Your task to perform on an android device: find which apps use the phone's location Image 0: 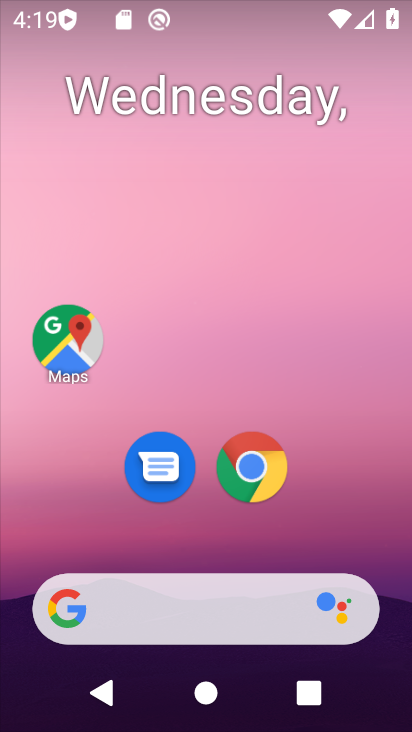
Step 0: drag from (380, 473) to (327, 221)
Your task to perform on an android device: find which apps use the phone's location Image 1: 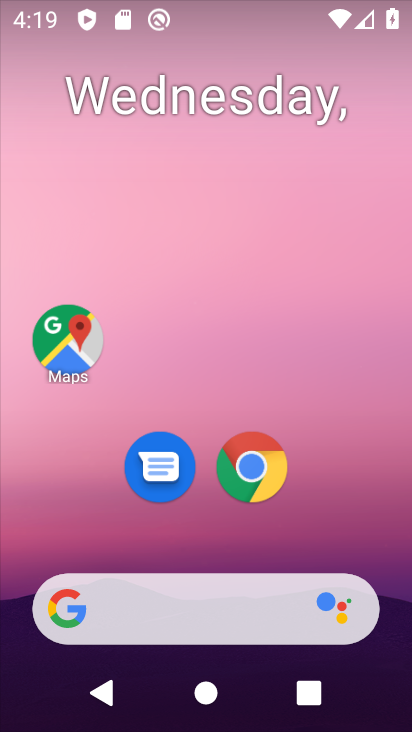
Step 1: drag from (327, 400) to (312, 203)
Your task to perform on an android device: find which apps use the phone's location Image 2: 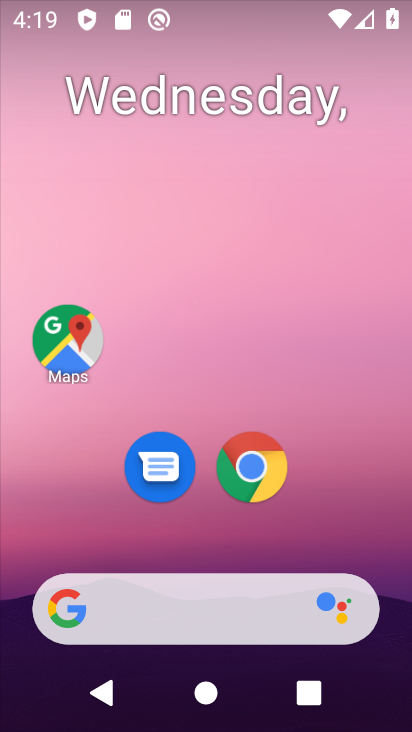
Step 2: drag from (380, 699) to (313, 50)
Your task to perform on an android device: find which apps use the phone's location Image 3: 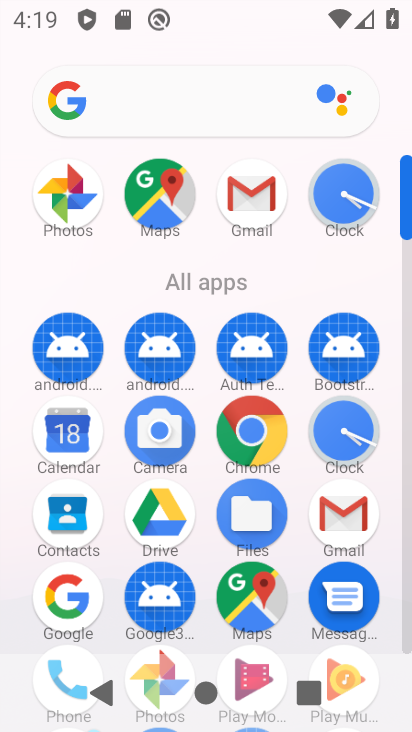
Step 3: drag from (386, 697) to (327, 475)
Your task to perform on an android device: find which apps use the phone's location Image 4: 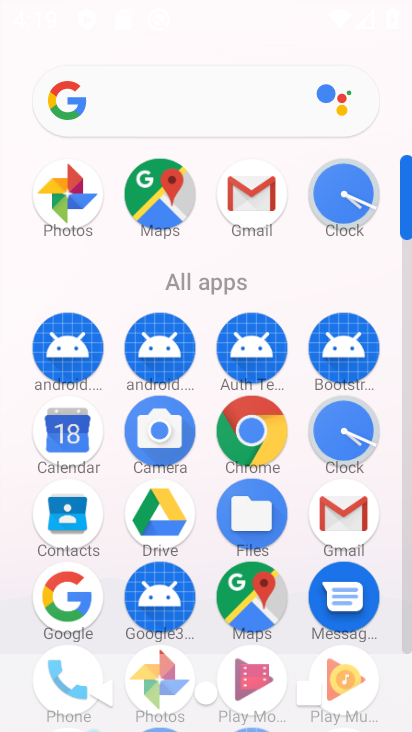
Step 4: drag from (410, 138) to (411, 84)
Your task to perform on an android device: find which apps use the phone's location Image 5: 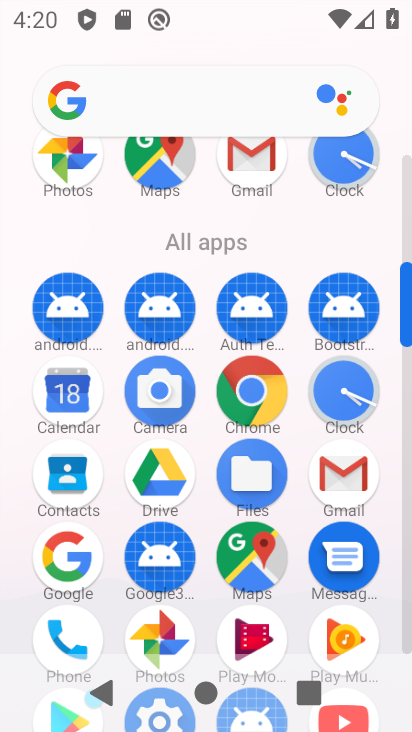
Step 5: drag from (407, 257) to (395, 149)
Your task to perform on an android device: find which apps use the phone's location Image 6: 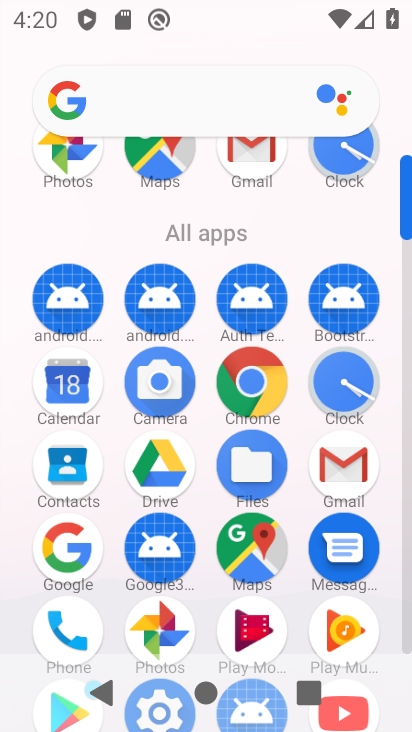
Step 6: drag from (410, 134) to (410, 63)
Your task to perform on an android device: find which apps use the phone's location Image 7: 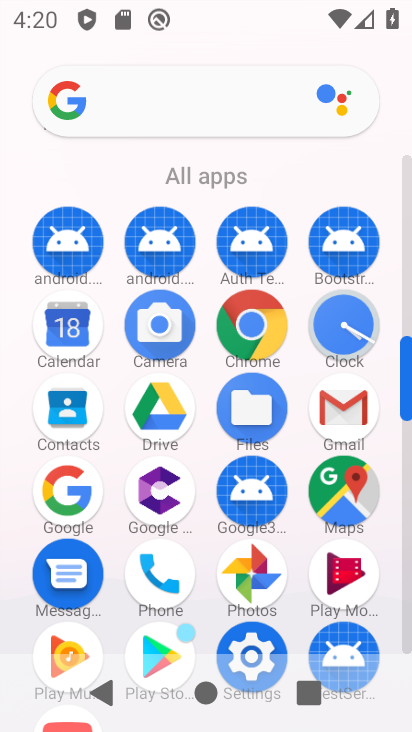
Step 7: click (229, 641)
Your task to perform on an android device: find which apps use the phone's location Image 8: 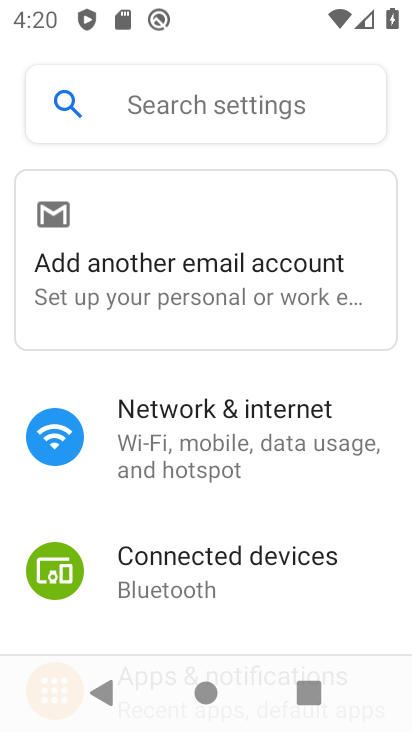
Step 8: drag from (252, 612) to (237, 171)
Your task to perform on an android device: find which apps use the phone's location Image 9: 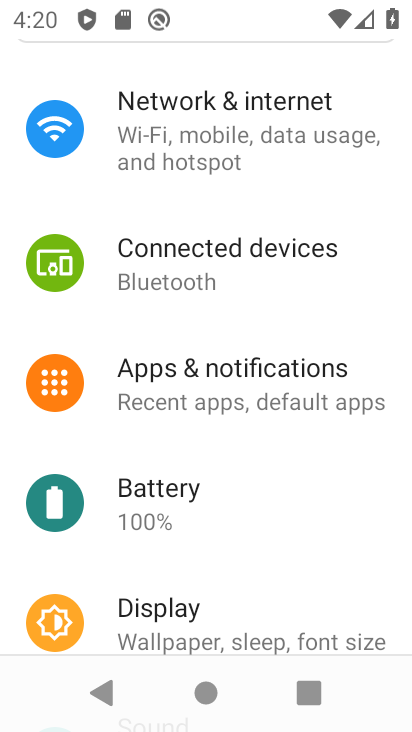
Step 9: drag from (269, 615) to (254, 291)
Your task to perform on an android device: find which apps use the phone's location Image 10: 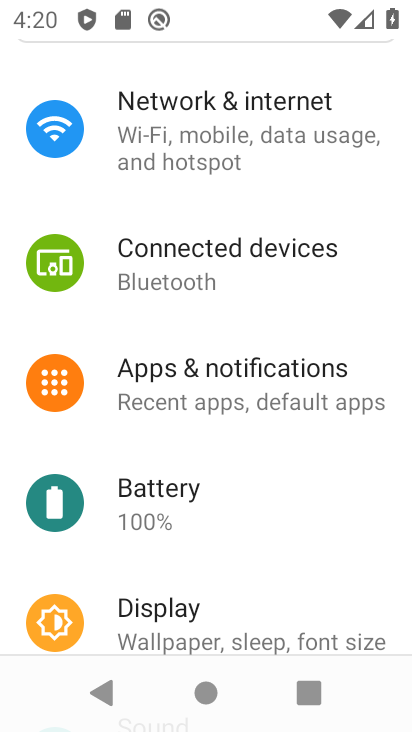
Step 10: drag from (259, 413) to (253, 269)
Your task to perform on an android device: find which apps use the phone's location Image 11: 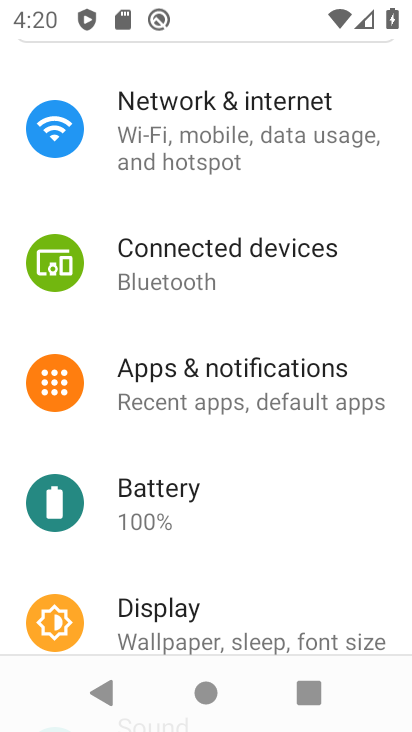
Step 11: click (298, 251)
Your task to perform on an android device: find which apps use the phone's location Image 12: 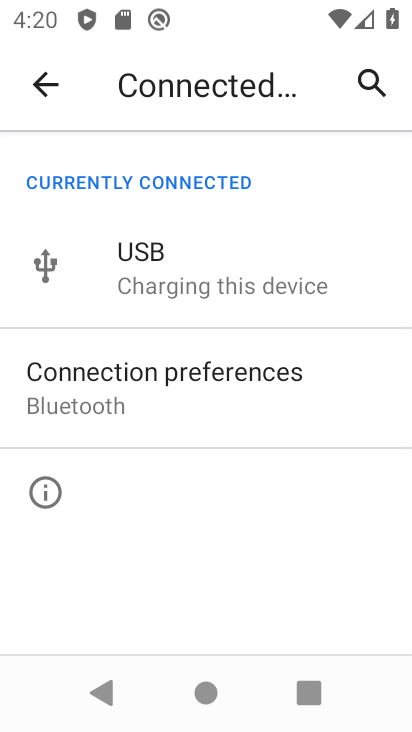
Step 12: click (31, 78)
Your task to perform on an android device: find which apps use the phone's location Image 13: 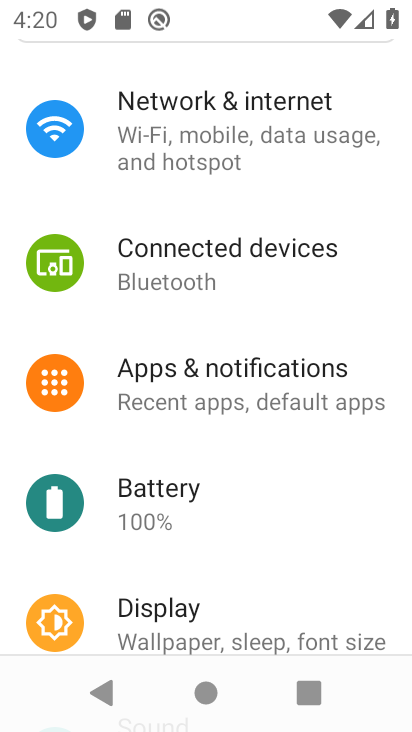
Step 13: drag from (387, 612) to (295, 91)
Your task to perform on an android device: find which apps use the phone's location Image 14: 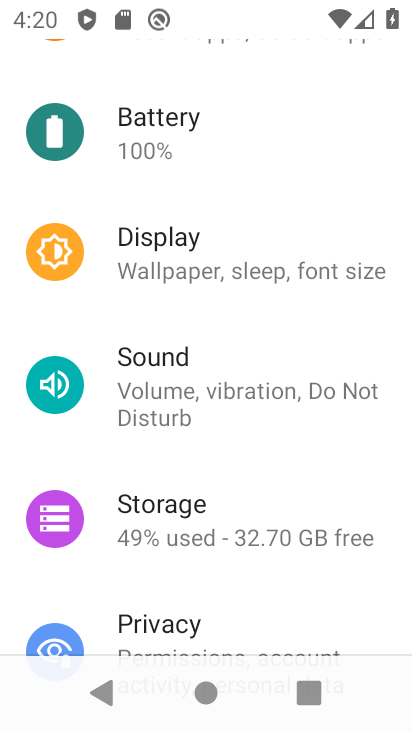
Step 14: drag from (356, 599) to (290, 168)
Your task to perform on an android device: find which apps use the phone's location Image 15: 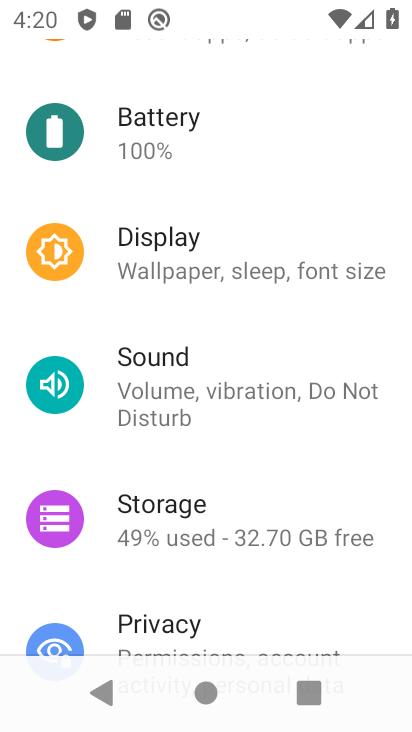
Step 15: drag from (372, 622) to (341, 155)
Your task to perform on an android device: find which apps use the phone's location Image 16: 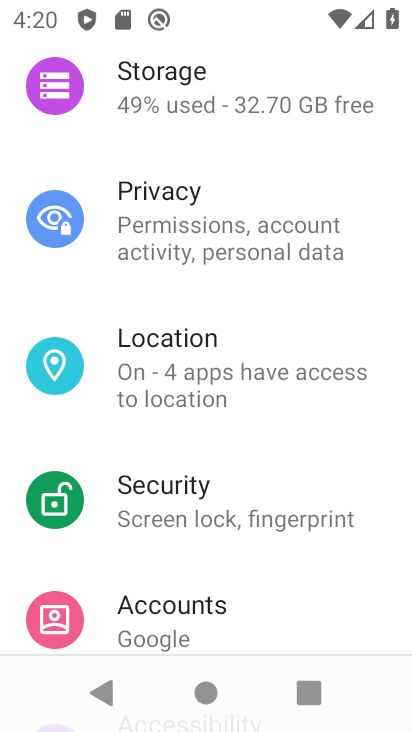
Step 16: click (141, 362)
Your task to perform on an android device: find which apps use the phone's location Image 17: 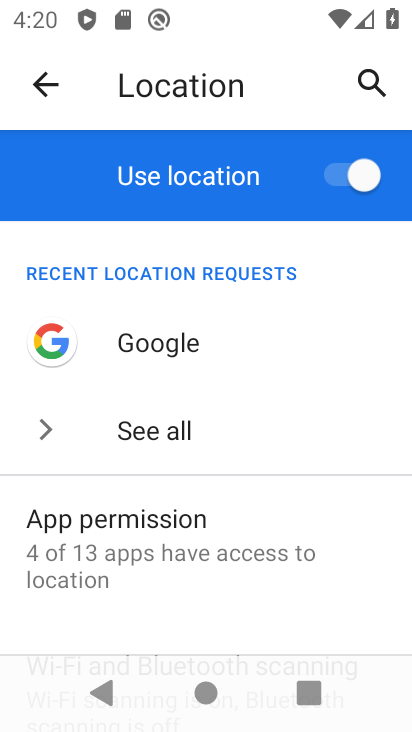
Step 17: click (71, 530)
Your task to perform on an android device: find which apps use the phone's location Image 18: 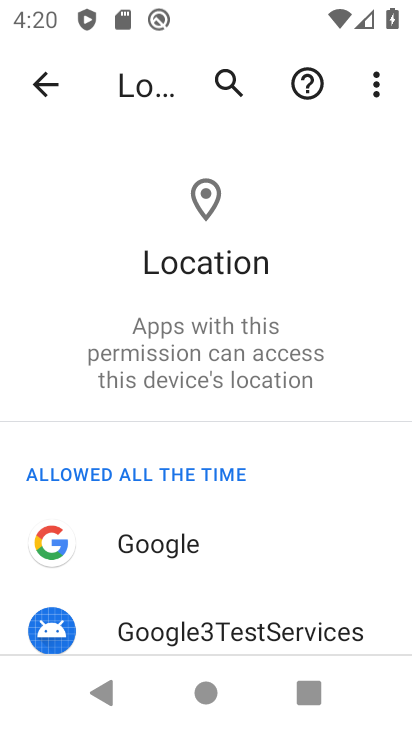
Step 18: task complete